Your task to perform on an android device: Go to Amazon Image 0: 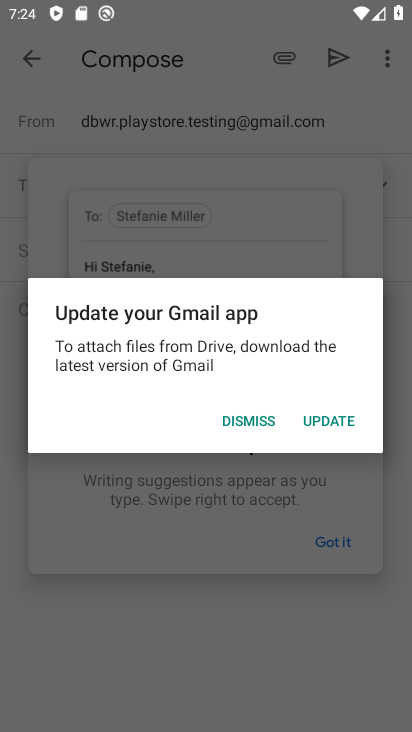
Step 0: press home button
Your task to perform on an android device: Go to Amazon Image 1: 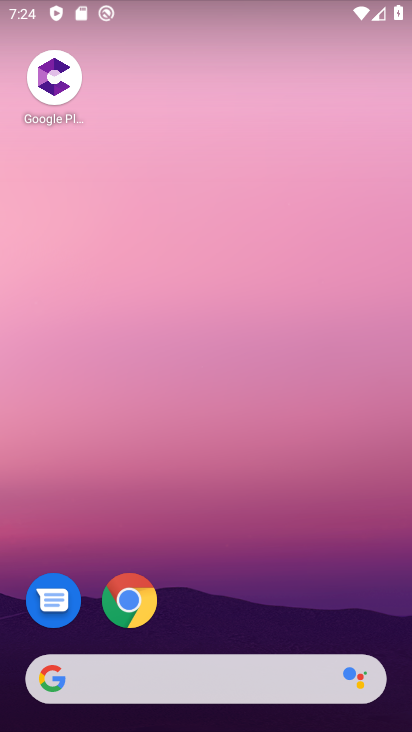
Step 1: drag from (362, 603) to (327, 91)
Your task to perform on an android device: Go to Amazon Image 2: 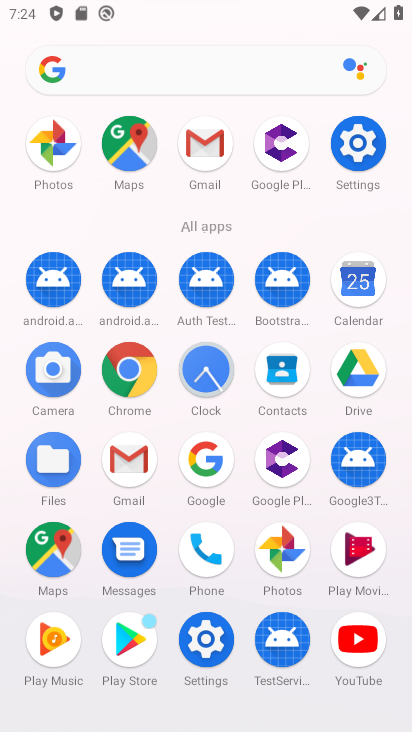
Step 2: click (126, 365)
Your task to perform on an android device: Go to Amazon Image 3: 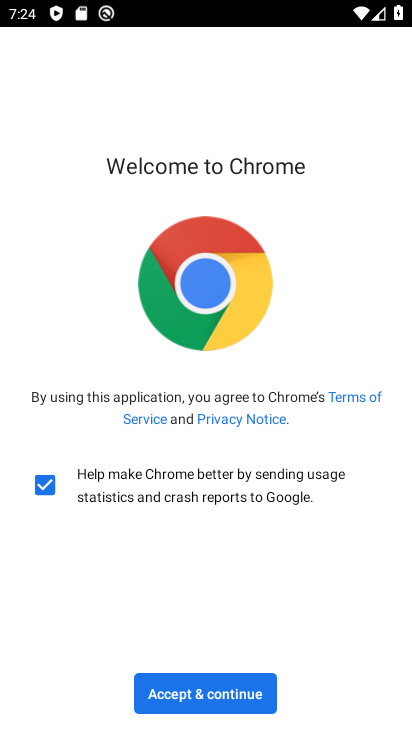
Step 3: click (207, 691)
Your task to perform on an android device: Go to Amazon Image 4: 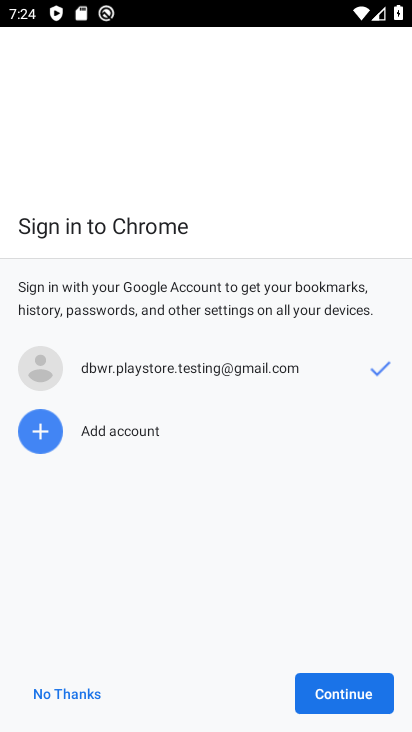
Step 4: click (318, 698)
Your task to perform on an android device: Go to Amazon Image 5: 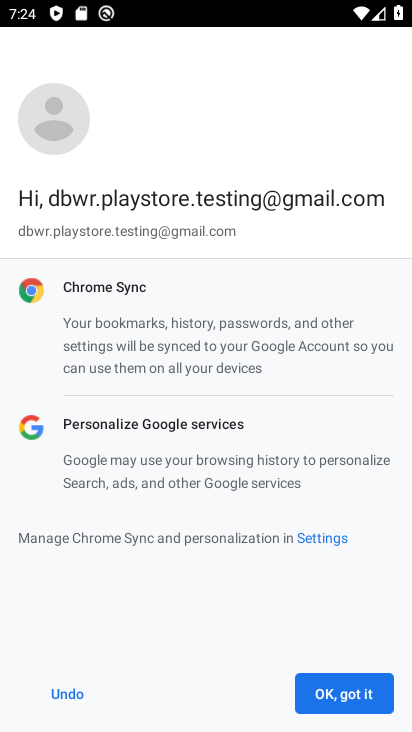
Step 5: click (320, 697)
Your task to perform on an android device: Go to Amazon Image 6: 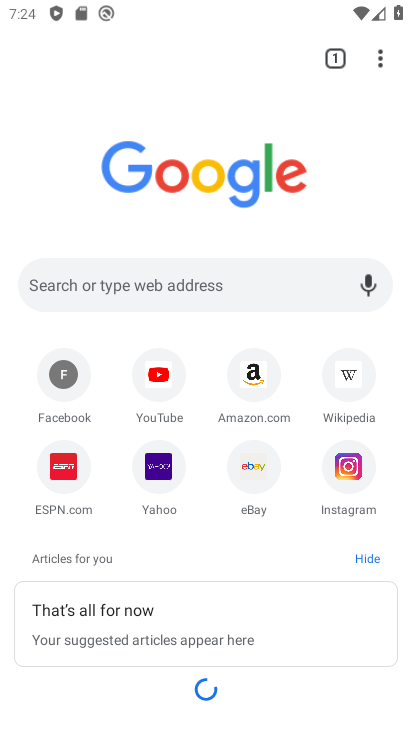
Step 6: click (267, 384)
Your task to perform on an android device: Go to Amazon Image 7: 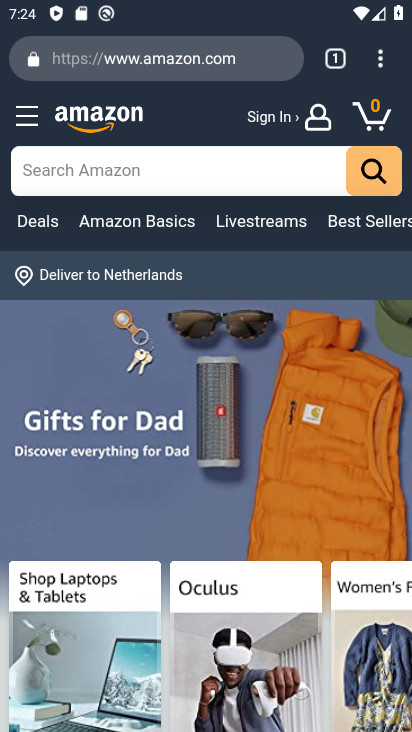
Step 7: task complete